Your task to perform on an android device: Open Google Chrome and open the bookmarks view Image 0: 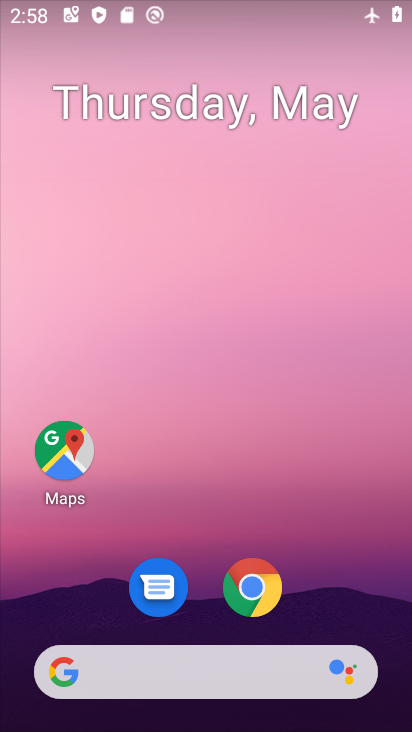
Step 0: drag from (253, 472) to (172, 2)
Your task to perform on an android device: Open Google Chrome and open the bookmarks view Image 1: 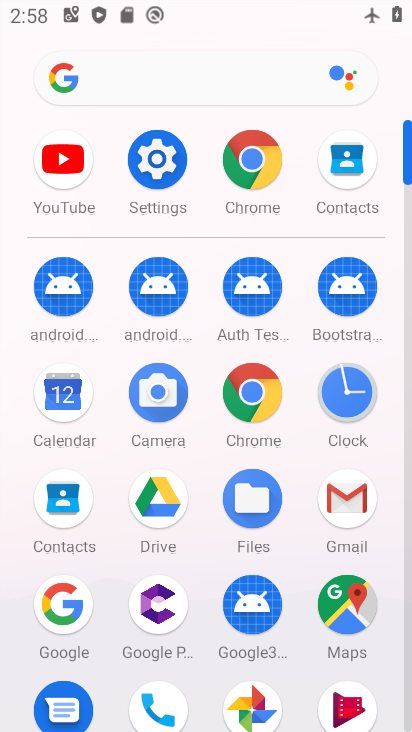
Step 1: click (264, 186)
Your task to perform on an android device: Open Google Chrome and open the bookmarks view Image 2: 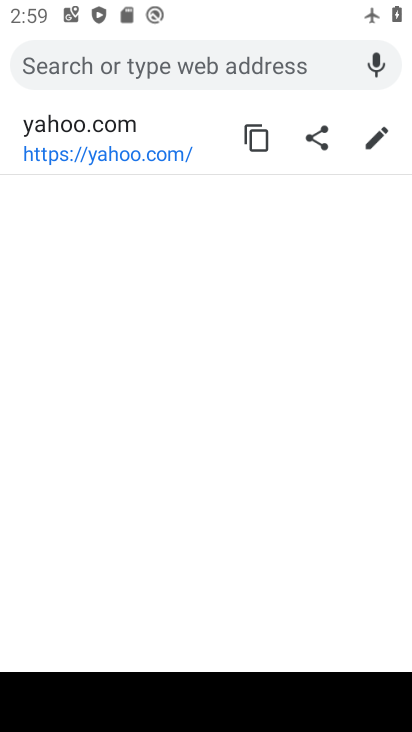
Step 2: press back button
Your task to perform on an android device: Open Google Chrome and open the bookmarks view Image 3: 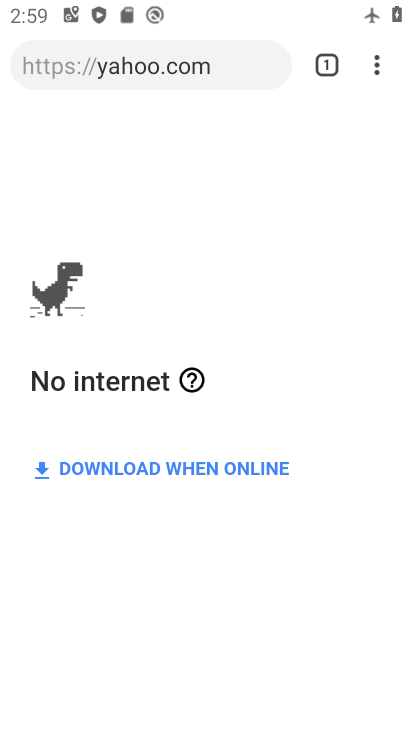
Step 3: click (386, 52)
Your task to perform on an android device: Open Google Chrome and open the bookmarks view Image 4: 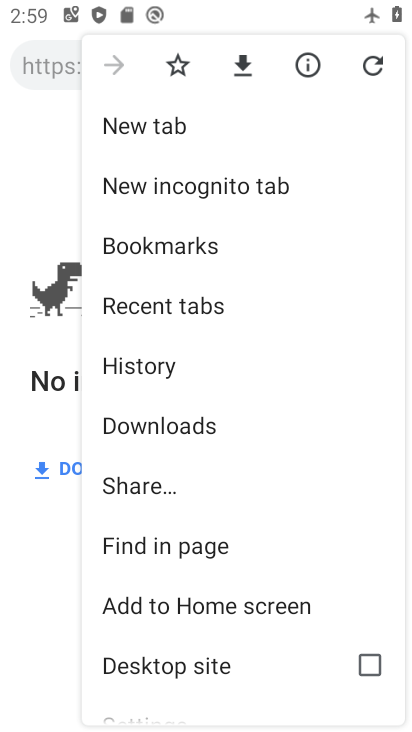
Step 4: click (240, 241)
Your task to perform on an android device: Open Google Chrome and open the bookmarks view Image 5: 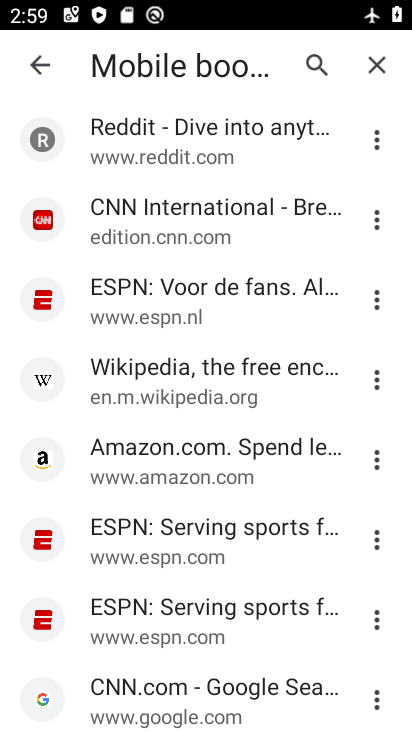
Step 5: task complete